Your task to perform on an android device: Empty the shopping cart on target.com. Image 0: 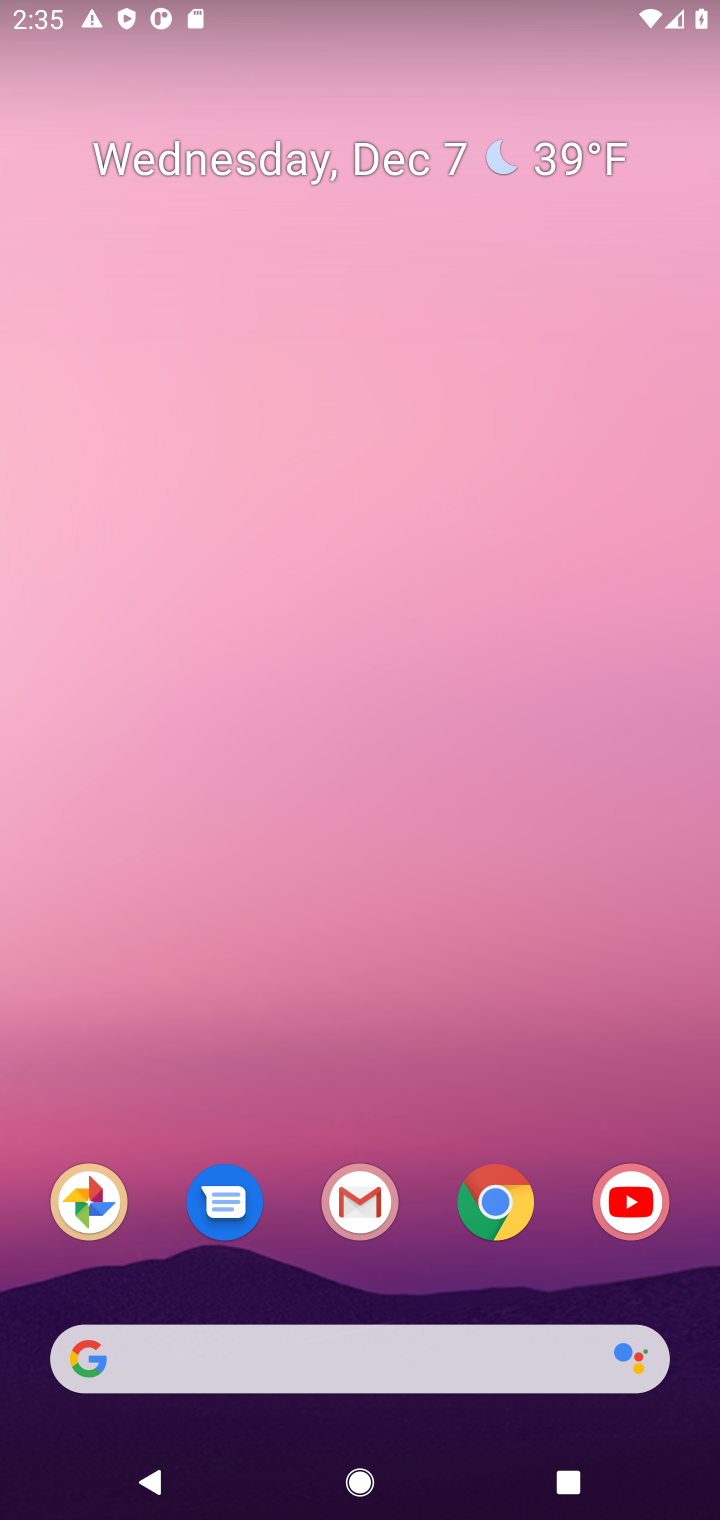
Step 0: click (508, 1193)
Your task to perform on an android device: Empty the shopping cart on target.com. Image 1: 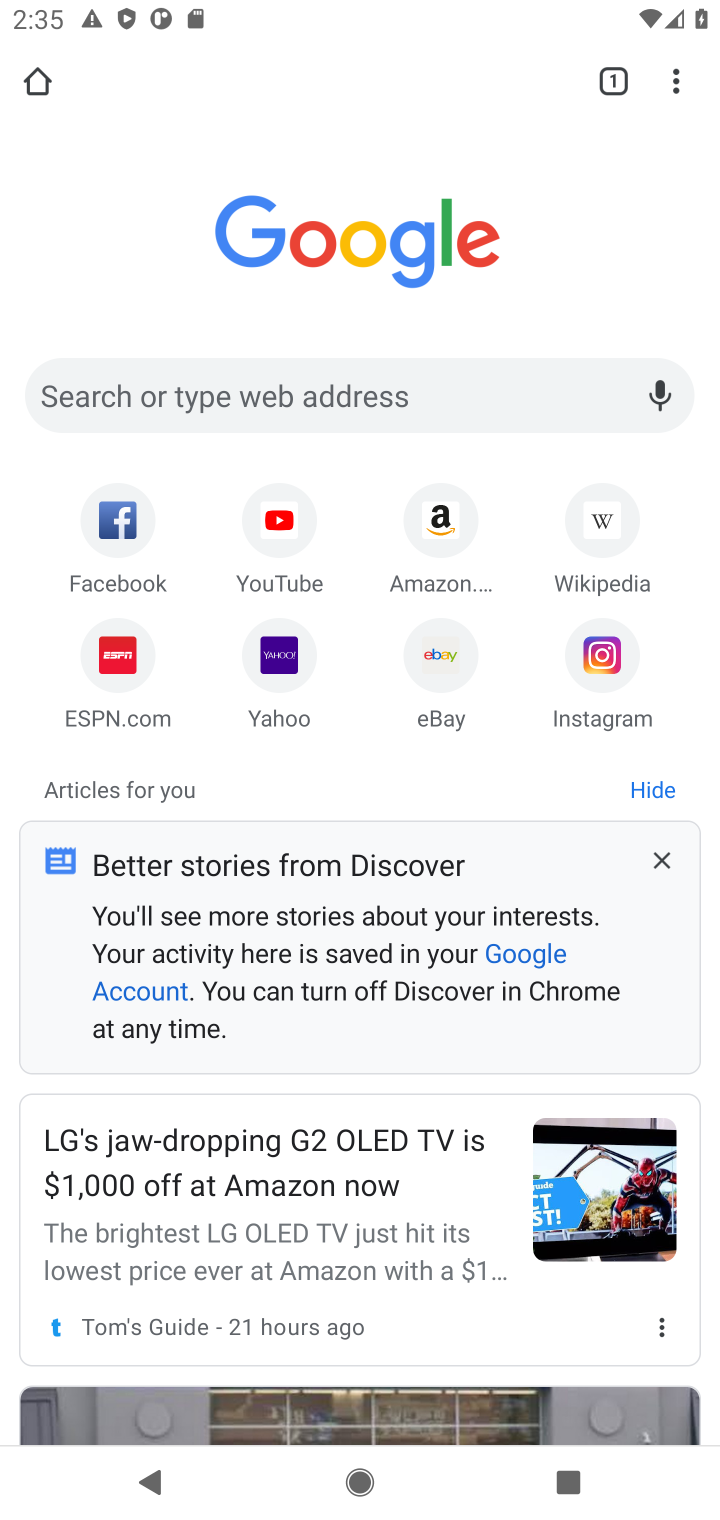
Step 1: click (426, 381)
Your task to perform on an android device: Empty the shopping cart on target.com. Image 2: 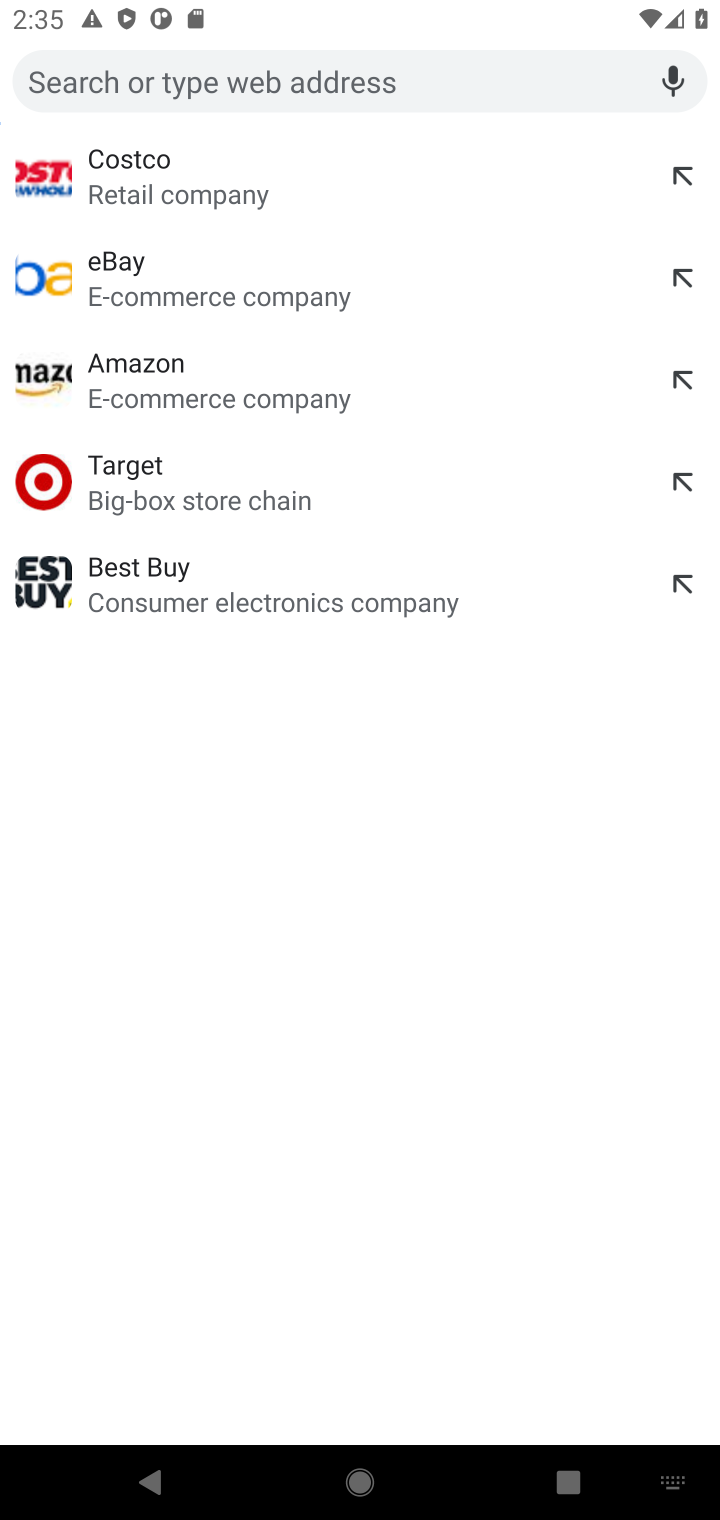
Step 2: click (311, 510)
Your task to perform on an android device: Empty the shopping cart on target.com. Image 3: 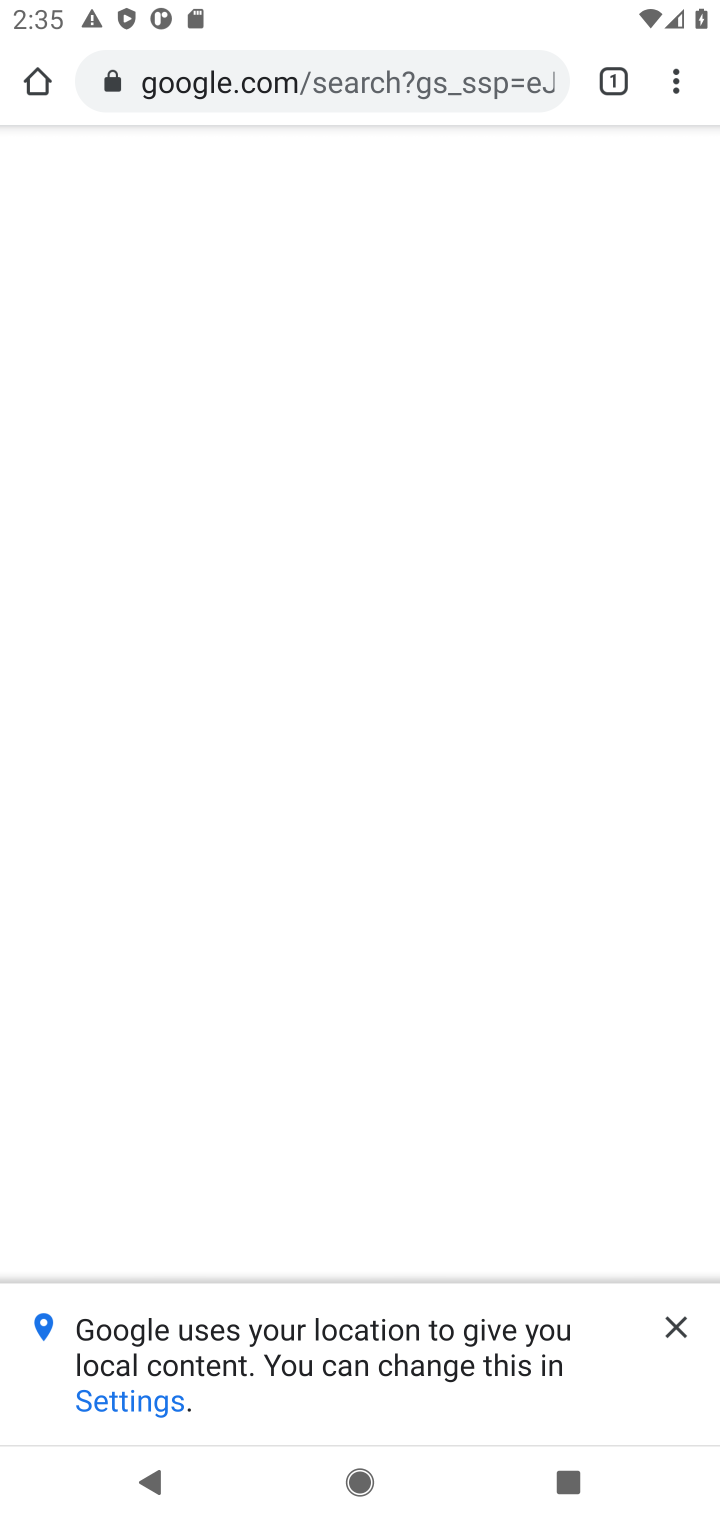
Step 3: click (675, 1326)
Your task to perform on an android device: Empty the shopping cart on target.com. Image 4: 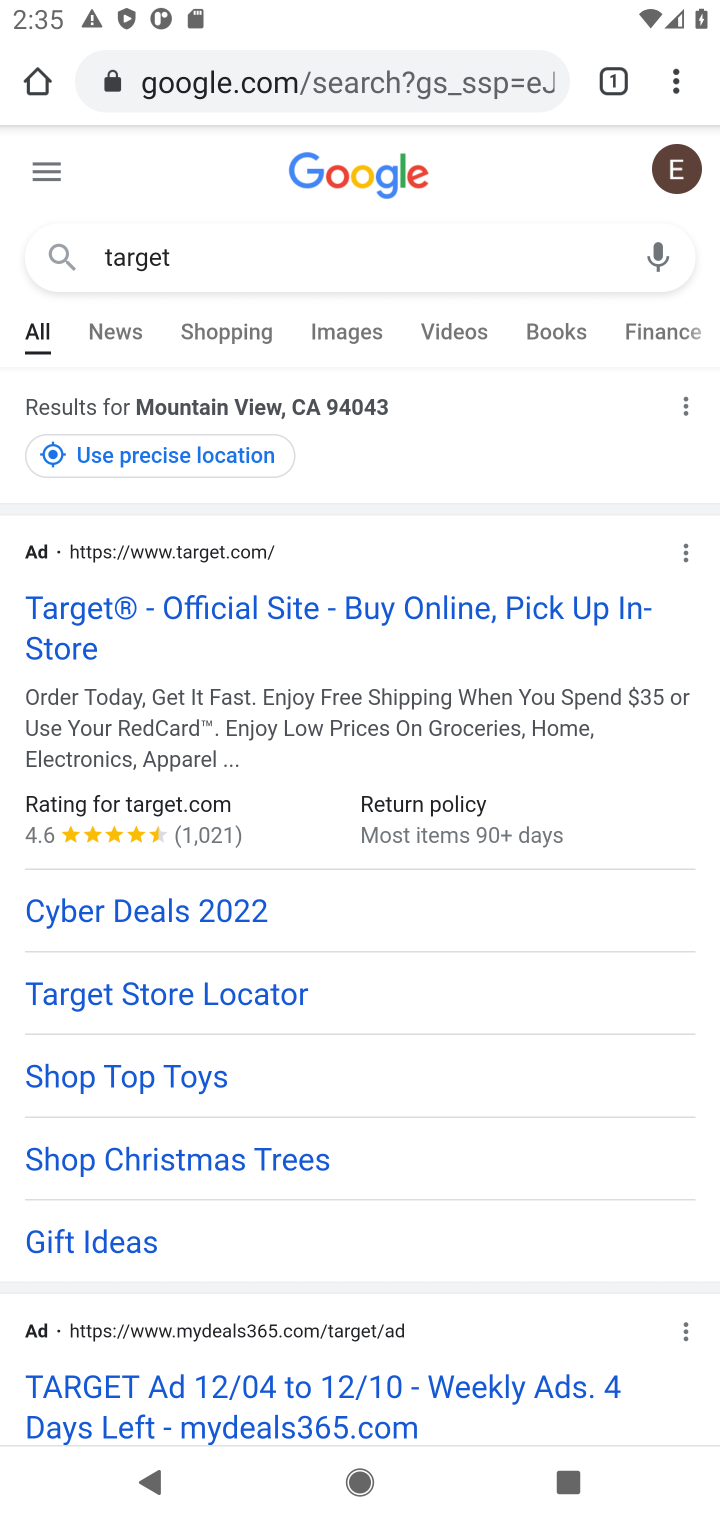
Step 4: click (99, 623)
Your task to perform on an android device: Empty the shopping cart on target.com. Image 5: 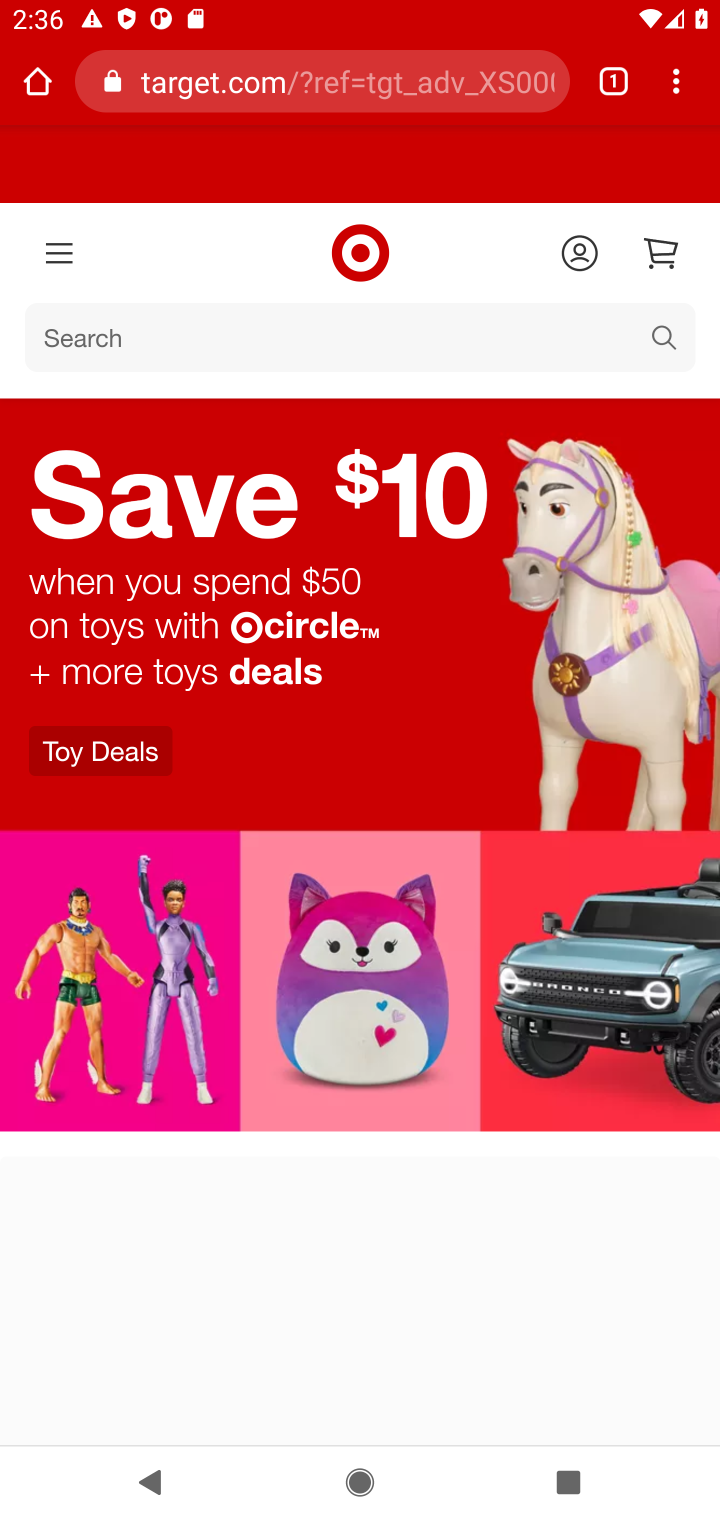
Step 5: click (420, 337)
Your task to perform on an android device: Empty the shopping cart on target.com. Image 6: 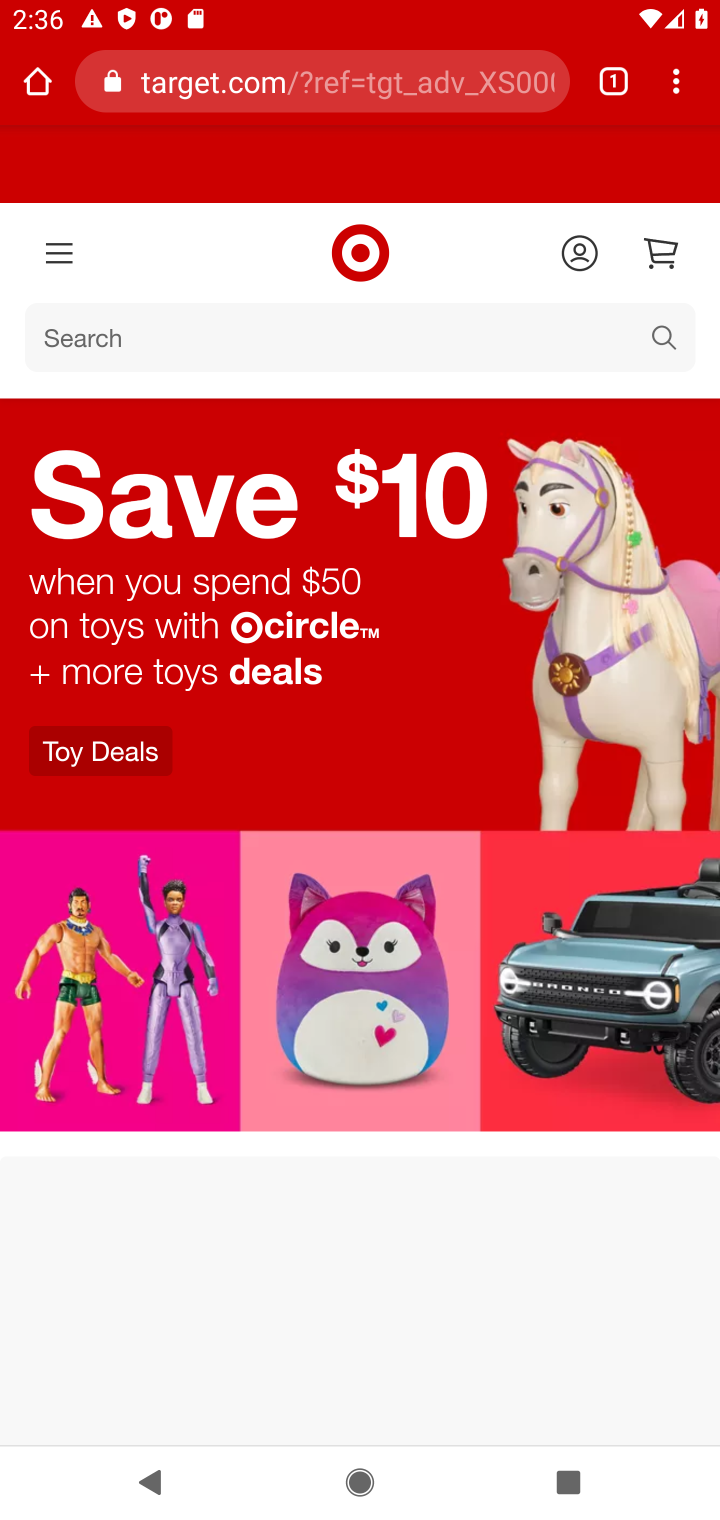
Step 6: click (658, 254)
Your task to perform on an android device: Empty the shopping cart on target.com. Image 7: 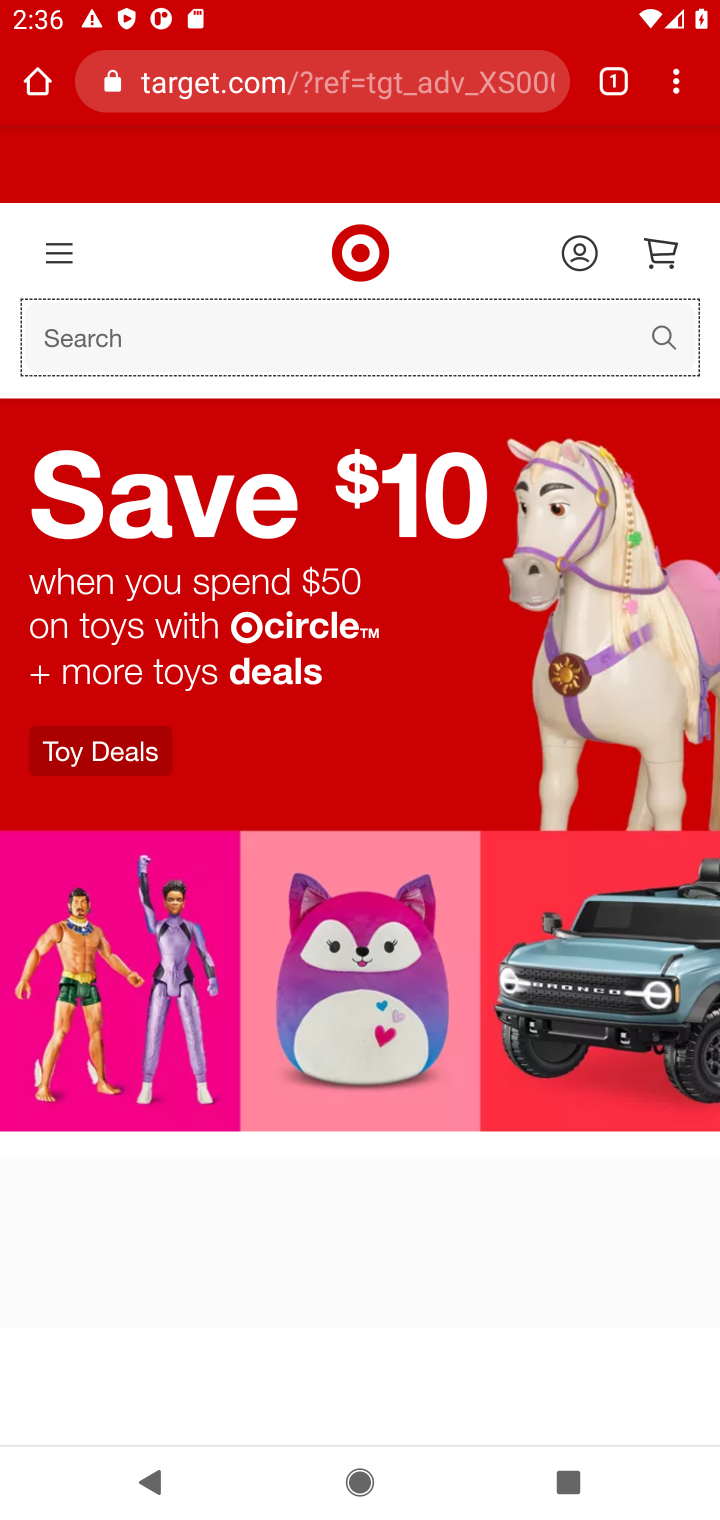
Step 7: click (658, 254)
Your task to perform on an android device: Empty the shopping cart on target.com. Image 8: 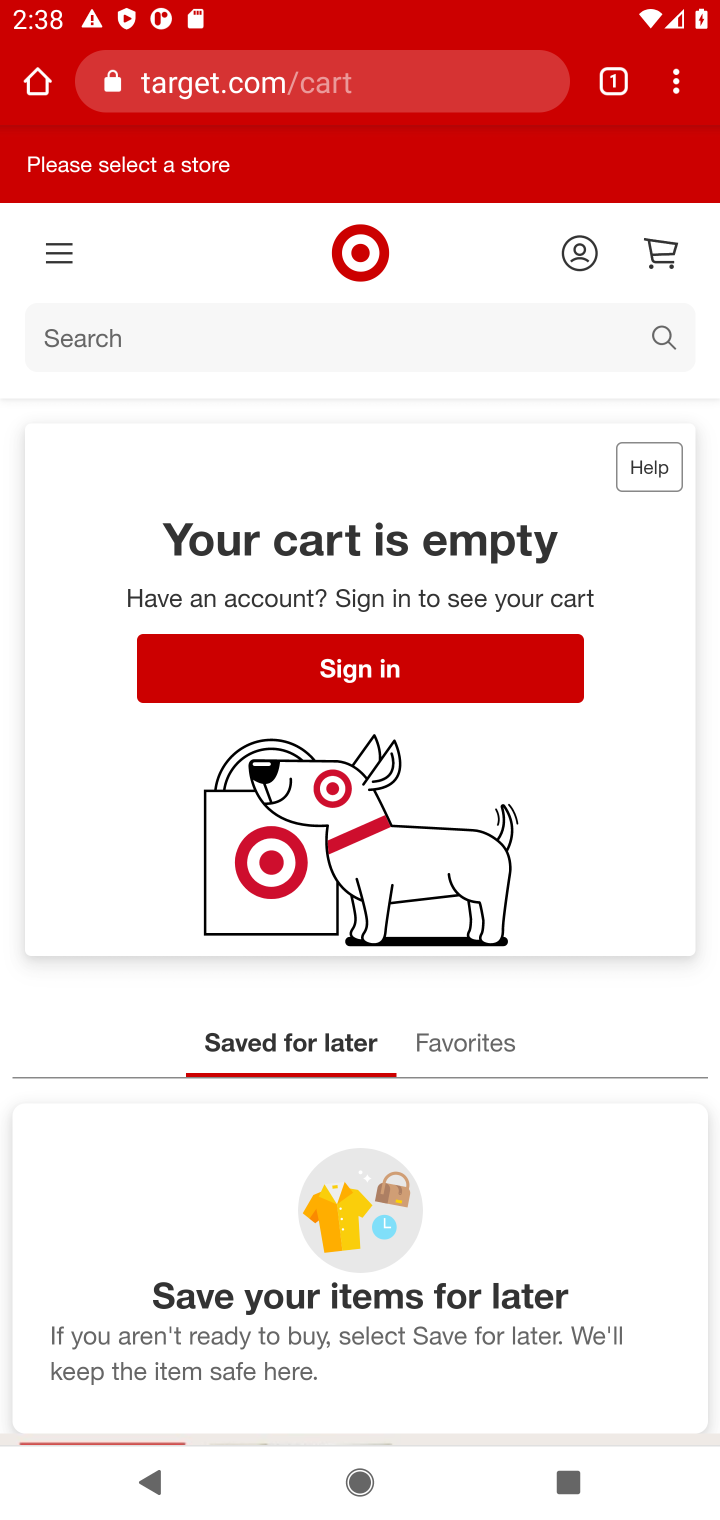
Step 8: task complete